Your task to perform on an android device: Open the web browser Image 0: 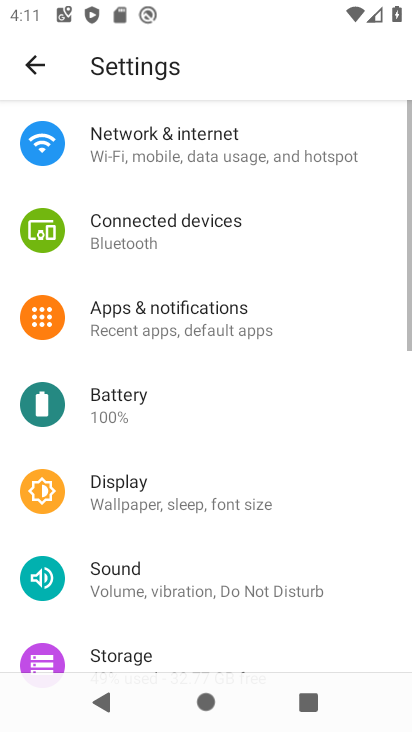
Step 0: press home button
Your task to perform on an android device: Open the web browser Image 1: 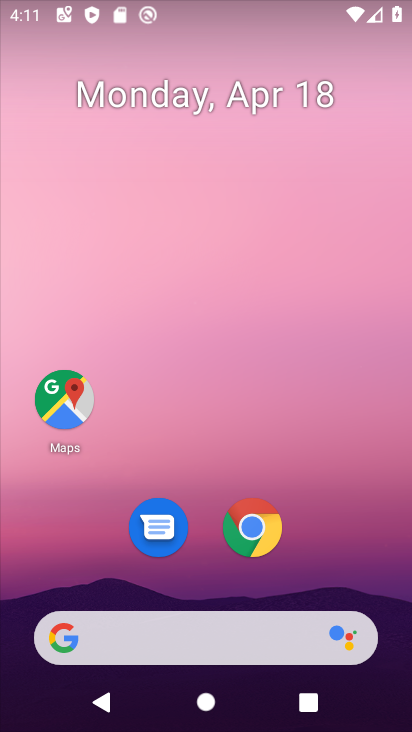
Step 1: drag from (210, 572) to (222, 1)
Your task to perform on an android device: Open the web browser Image 2: 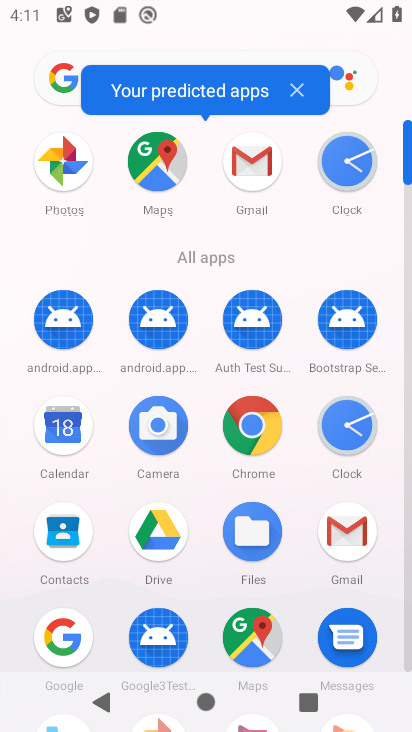
Step 2: drag from (206, 251) to (205, 67)
Your task to perform on an android device: Open the web browser Image 3: 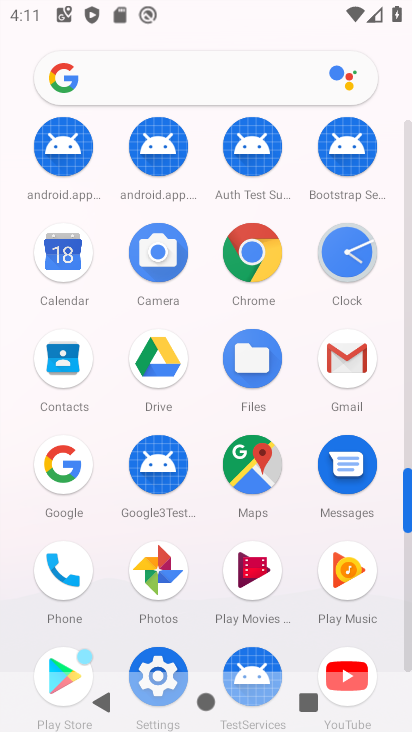
Step 3: click (64, 458)
Your task to perform on an android device: Open the web browser Image 4: 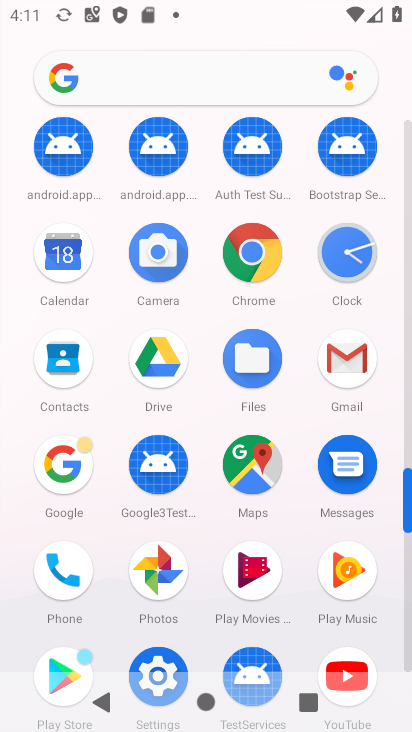
Step 4: drag from (191, 470) to (225, 188)
Your task to perform on an android device: Open the web browser Image 5: 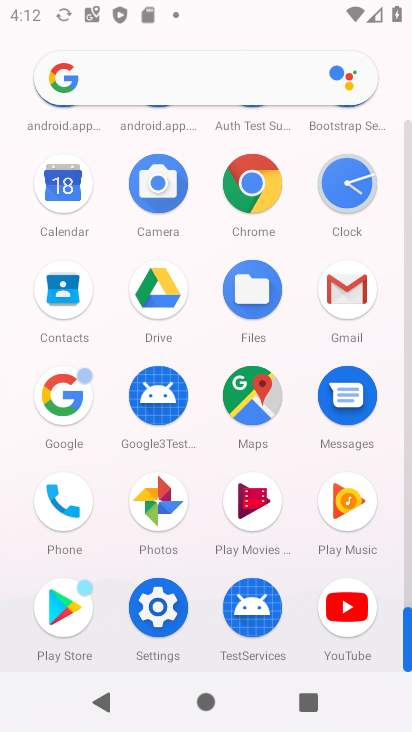
Step 5: click (67, 397)
Your task to perform on an android device: Open the web browser Image 6: 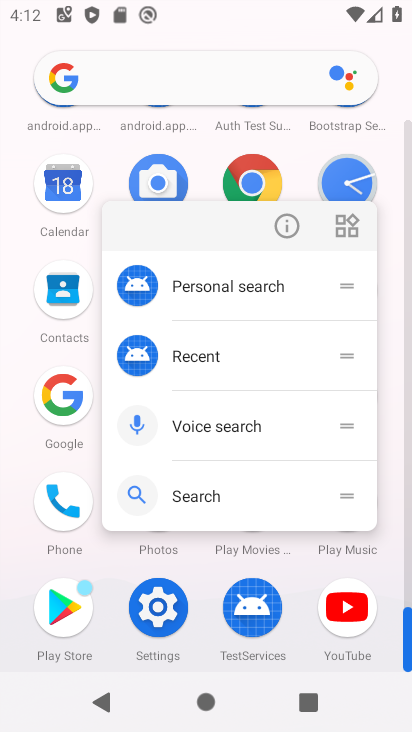
Step 6: click (66, 396)
Your task to perform on an android device: Open the web browser Image 7: 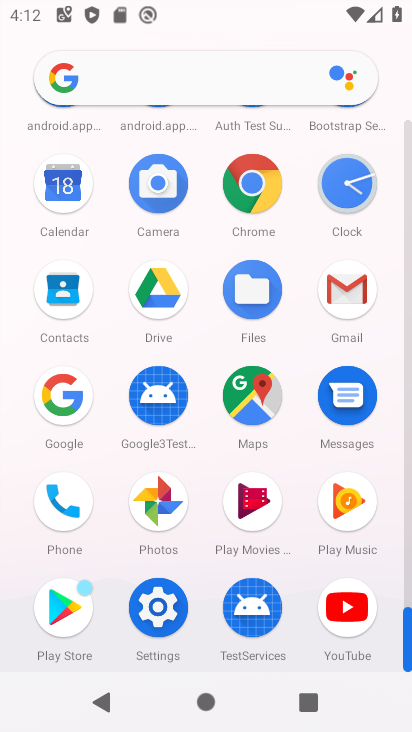
Step 7: click (63, 391)
Your task to perform on an android device: Open the web browser Image 8: 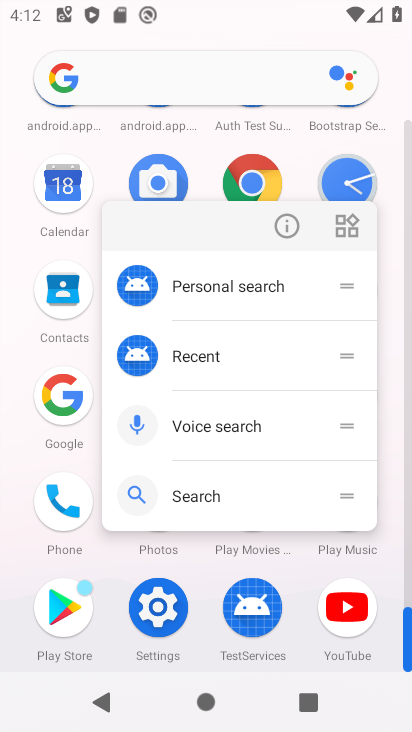
Step 8: click (55, 390)
Your task to perform on an android device: Open the web browser Image 9: 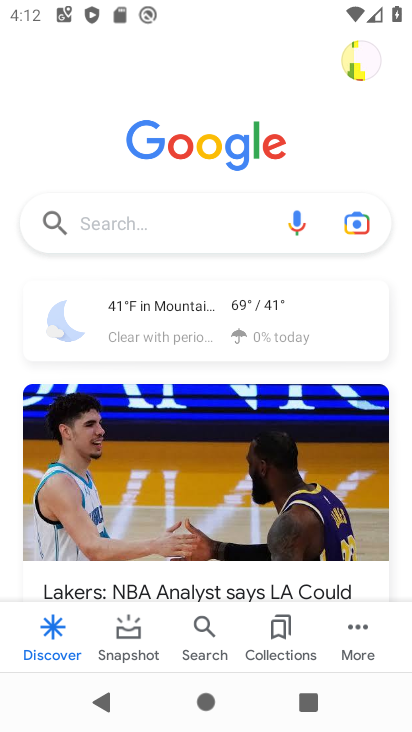
Step 9: task complete